Your task to perform on an android device: Set the phone to "Do not disturb". Image 0: 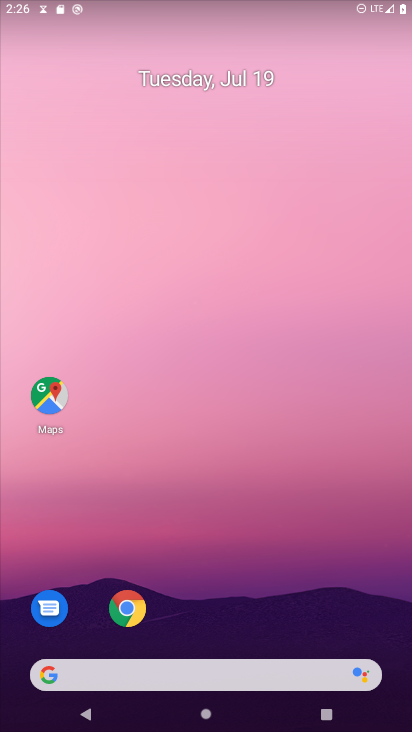
Step 0: drag from (195, 679) to (263, 0)
Your task to perform on an android device: Set the phone to "Do not disturb". Image 1: 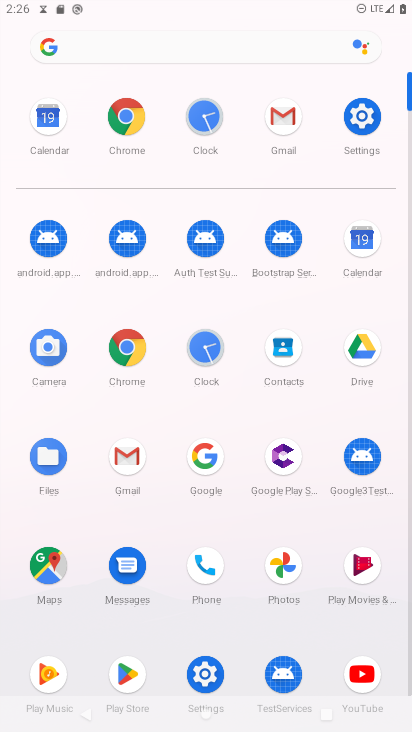
Step 1: click (354, 107)
Your task to perform on an android device: Set the phone to "Do not disturb". Image 2: 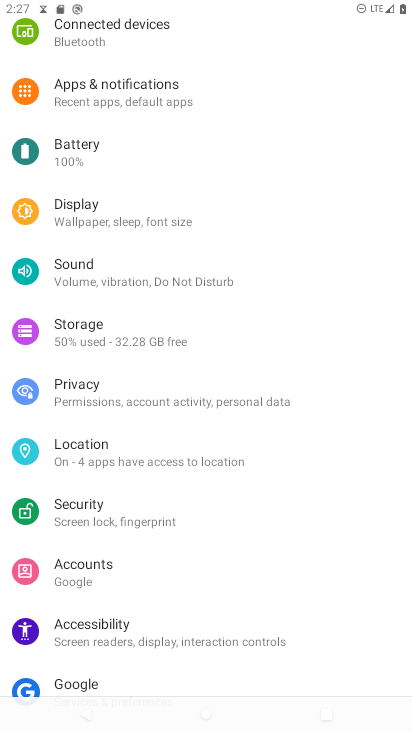
Step 2: click (59, 273)
Your task to perform on an android device: Set the phone to "Do not disturb". Image 3: 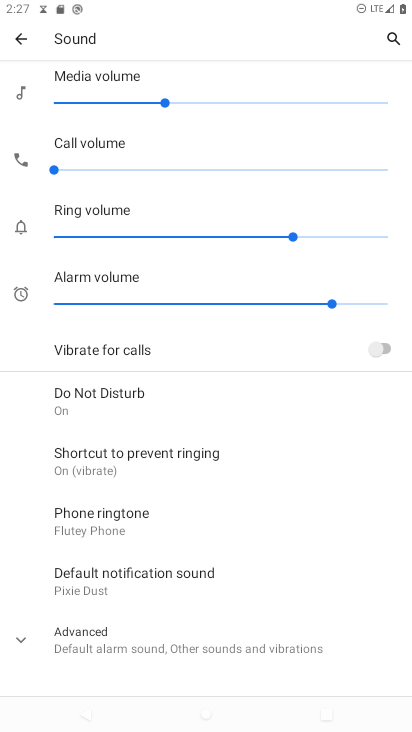
Step 3: click (142, 400)
Your task to perform on an android device: Set the phone to "Do not disturb". Image 4: 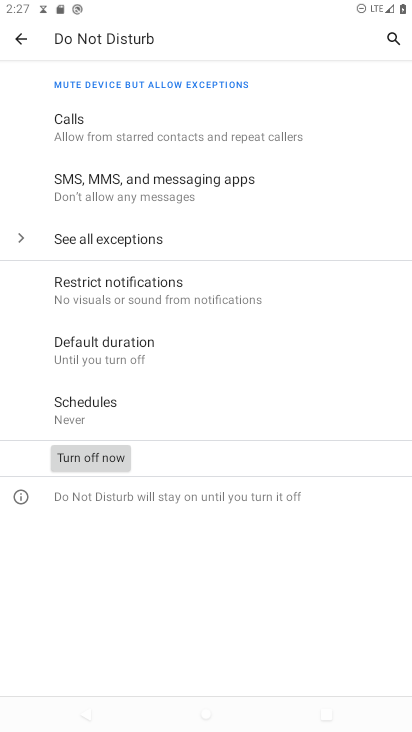
Step 4: task complete